Your task to perform on an android device: turn off location history Image 0: 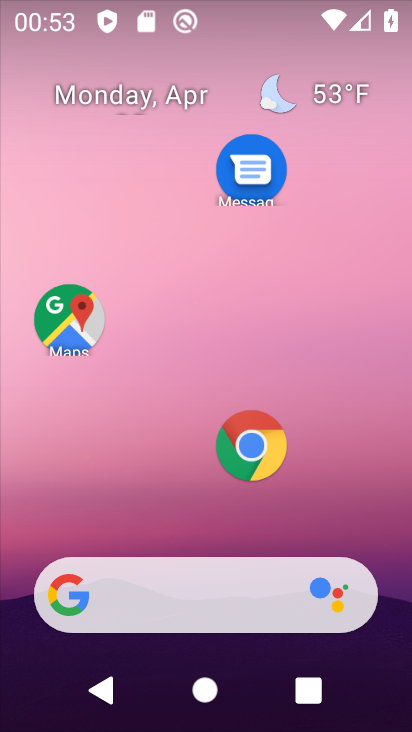
Step 0: drag from (157, 512) to (185, 61)
Your task to perform on an android device: turn off location history Image 1: 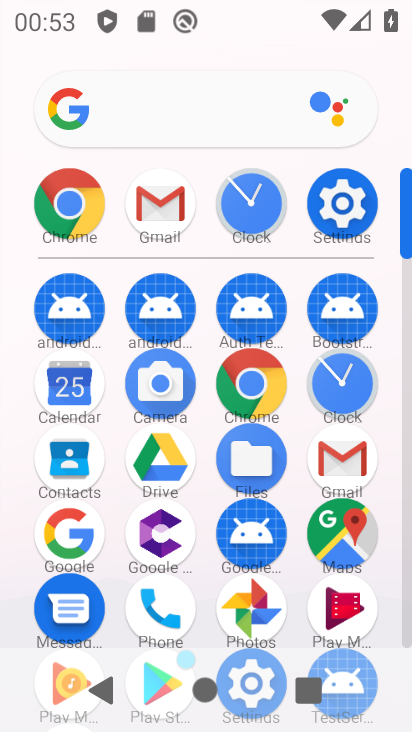
Step 1: drag from (198, 559) to (301, 106)
Your task to perform on an android device: turn off location history Image 2: 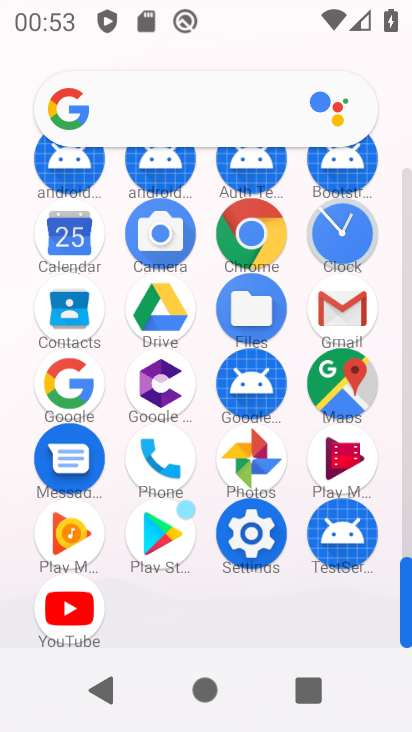
Step 2: click (258, 545)
Your task to perform on an android device: turn off location history Image 3: 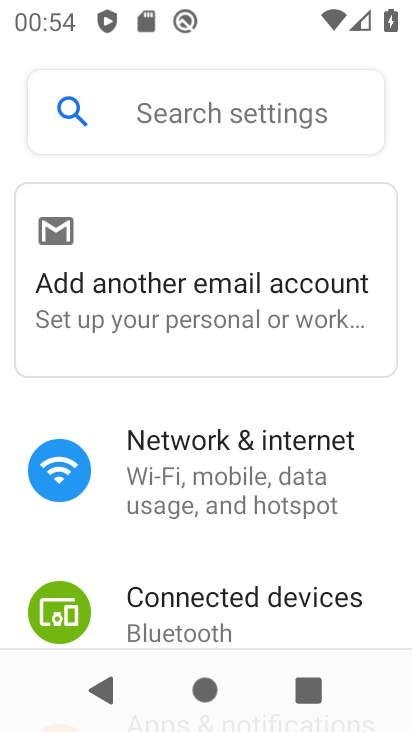
Step 3: drag from (196, 572) to (296, 37)
Your task to perform on an android device: turn off location history Image 4: 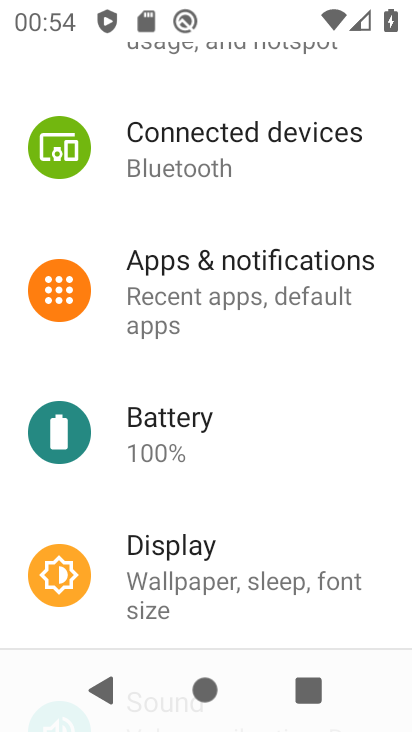
Step 4: drag from (213, 518) to (305, 36)
Your task to perform on an android device: turn off location history Image 5: 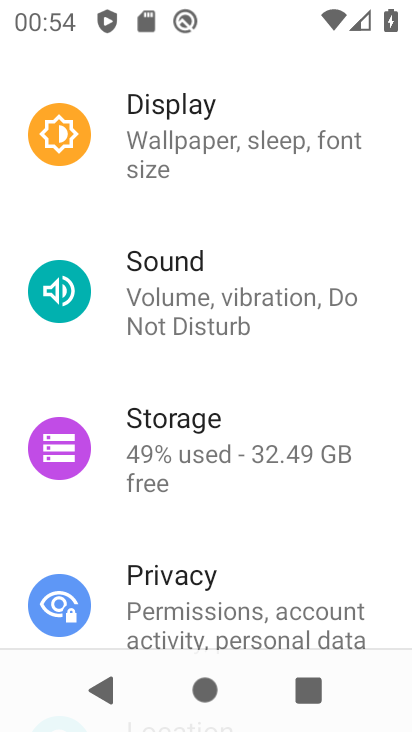
Step 5: drag from (222, 522) to (291, 104)
Your task to perform on an android device: turn off location history Image 6: 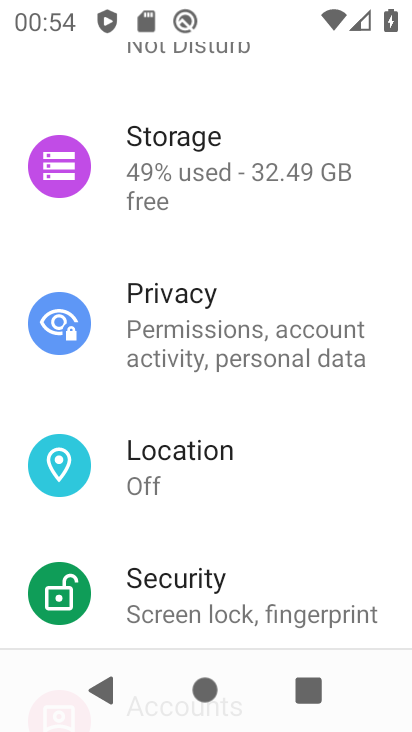
Step 6: click (190, 477)
Your task to perform on an android device: turn off location history Image 7: 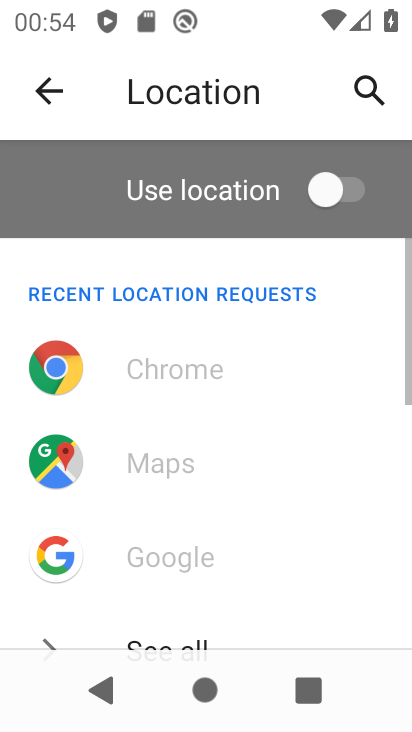
Step 7: drag from (169, 573) to (219, 234)
Your task to perform on an android device: turn off location history Image 8: 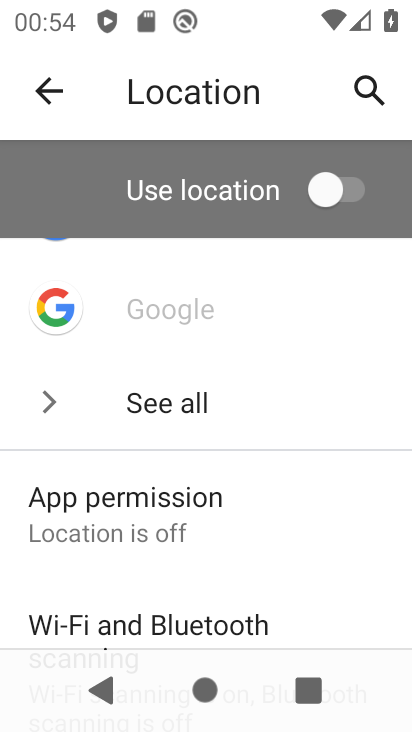
Step 8: drag from (168, 504) to (235, 189)
Your task to perform on an android device: turn off location history Image 9: 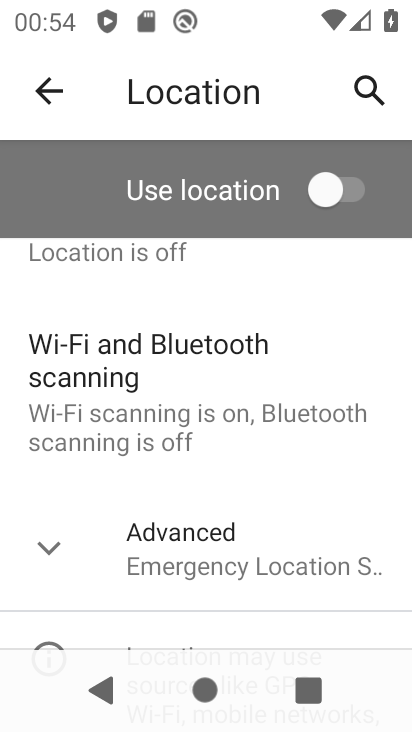
Step 9: click (221, 548)
Your task to perform on an android device: turn off location history Image 10: 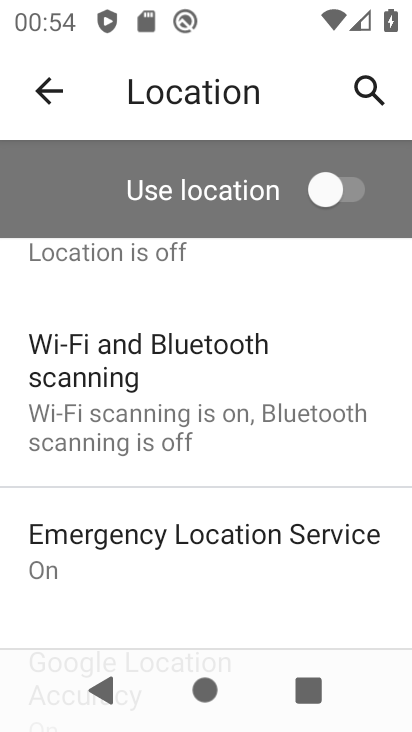
Step 10: drag from (176, 532) to (213, 316)
Your task to perform on an android device: turn off location history Image 11: 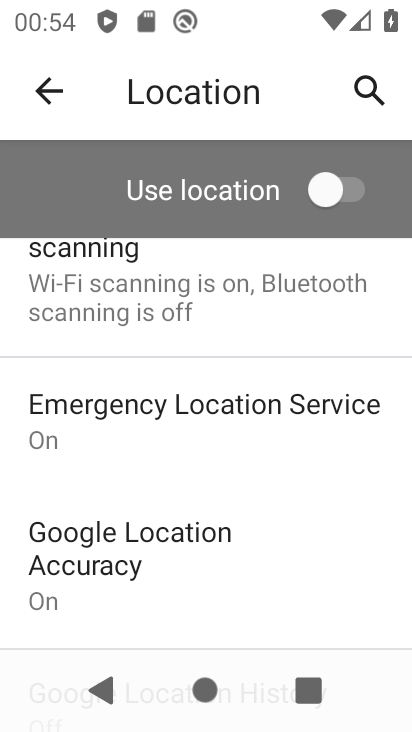
Step 11: drag from (188, 574) to (279, 256)
Your task to perform on an android device: turn off location history Image 12: 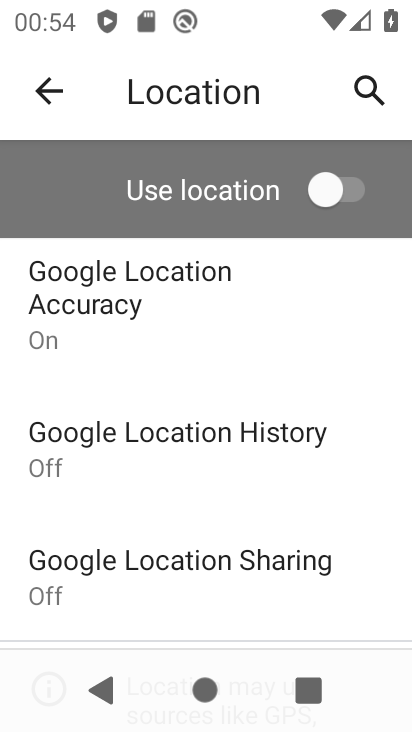
Step 12: click (145, 454)
Your task to perform on an android device: turn off location history Image 13: 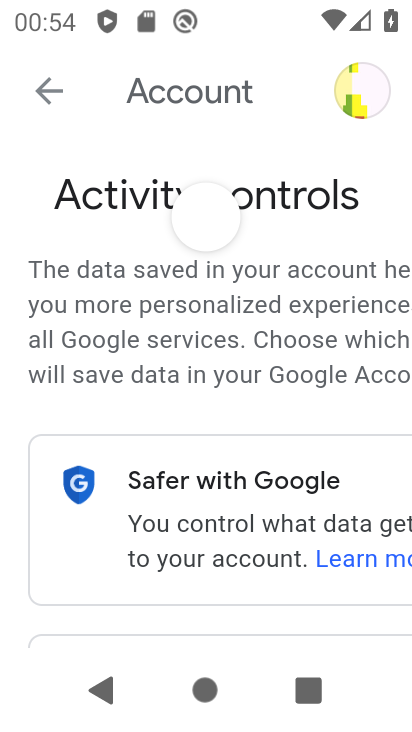
Step 13: drag from (198, 462) to (279, 128)
Your task to perform on an android device: turn off location history Image 14: 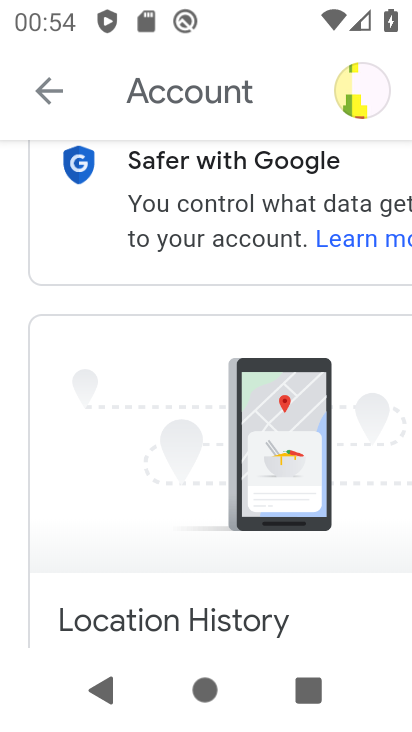
Step 14: drag from (251, 526) to (293, 113)
Your task to perform on an android device: turn off location history Image 15: 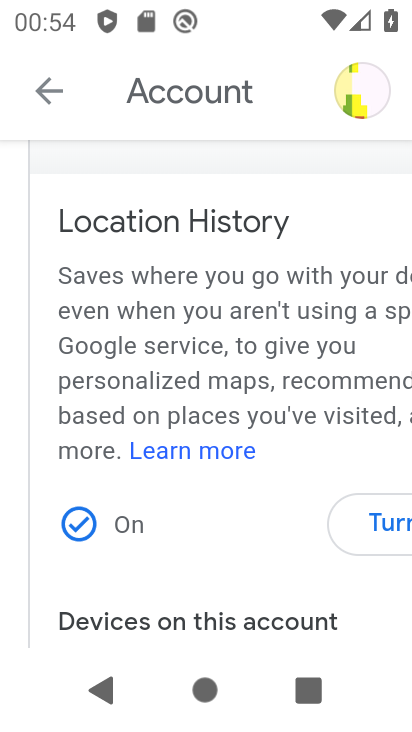
Step 15: click (366, 513)
Your task to perform on an android device: turn off location history Image 16: 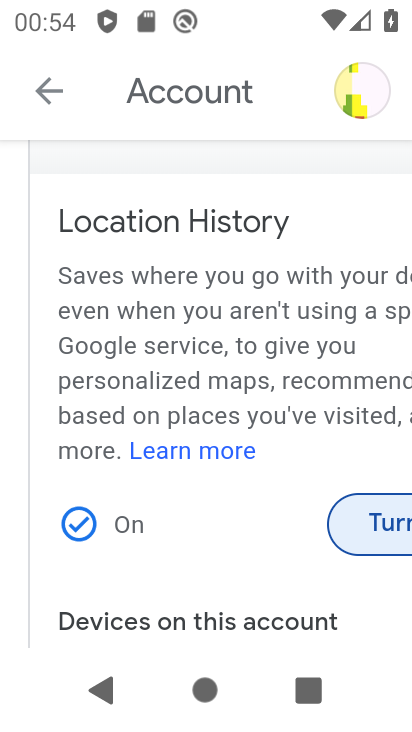
Step 16: click (366, 521)
Your task to perform on an android device: turn off location history Image 17: 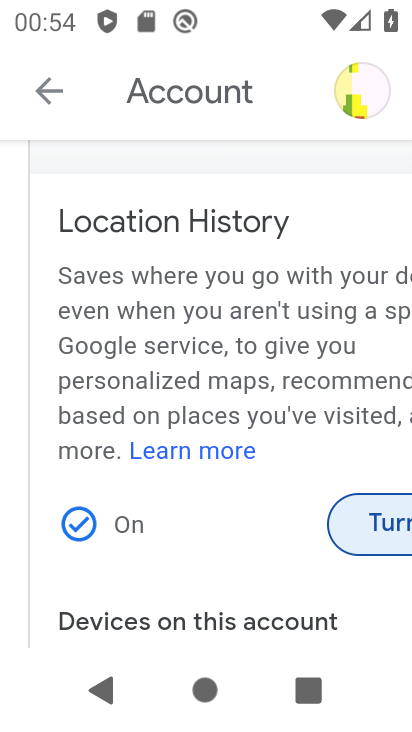
Step 17: click (367, 516)
Your task to perform on an android device: turn off location history Image 18: 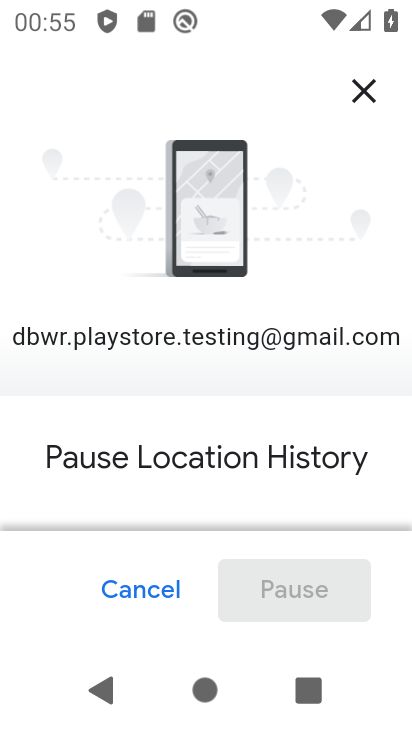
Step 18: drag from (187, 497) to (267, 16)
Your task to perform on an android device: turn off location history Image 19: 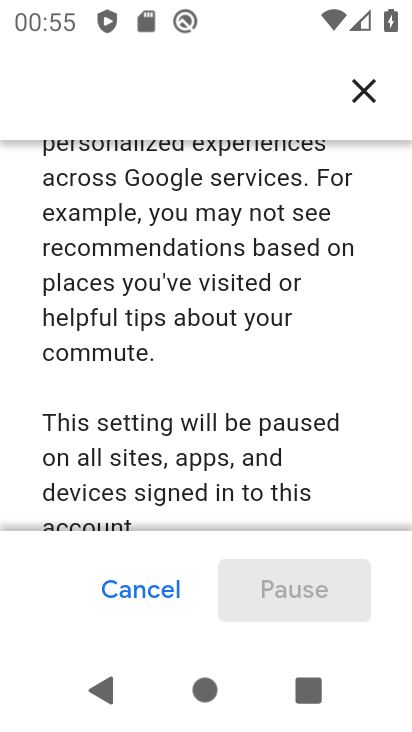
Step 19: drag from (199, 444) to (296, 13)
Your task to perform on an android device: turn off location history Image 20: 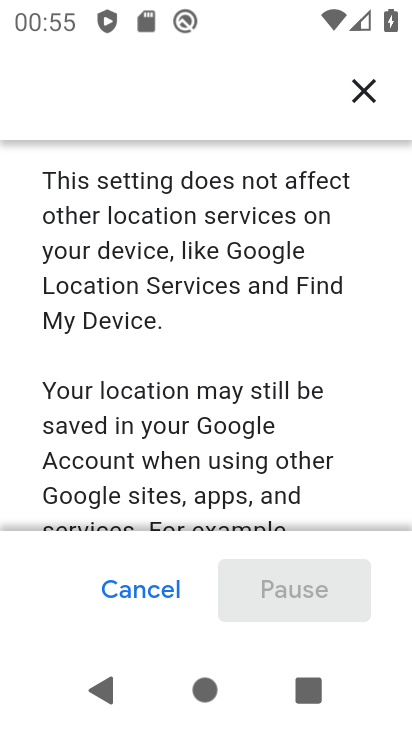
Step 20: drag from (205, 445) to (262, 89)
Your task to perform on an android device: turn off location history Image 21: 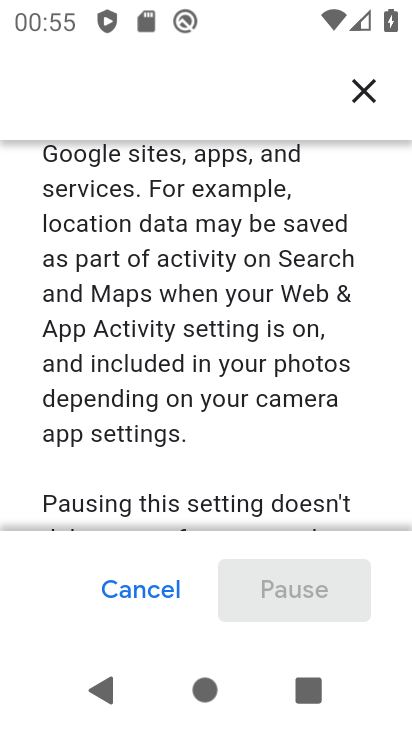
Step 21: drag from (202, 413) to (261, 72)
Your task to perform on an android device: turn off location history Image 22: 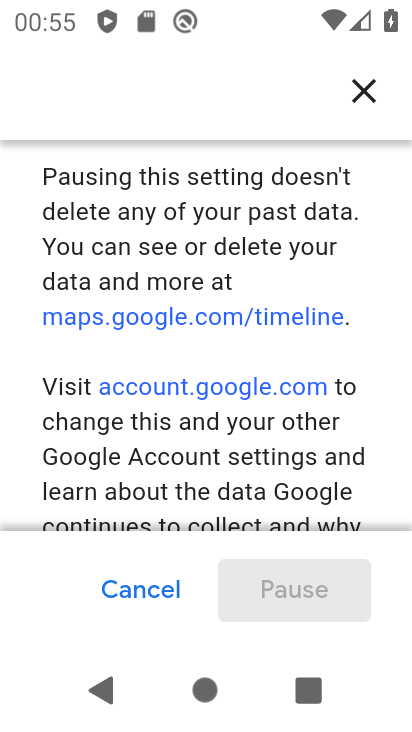
Step 22: drag from (148, 416) to (210, 69)
Your task to perform on an android device: turn off location history Image 23: 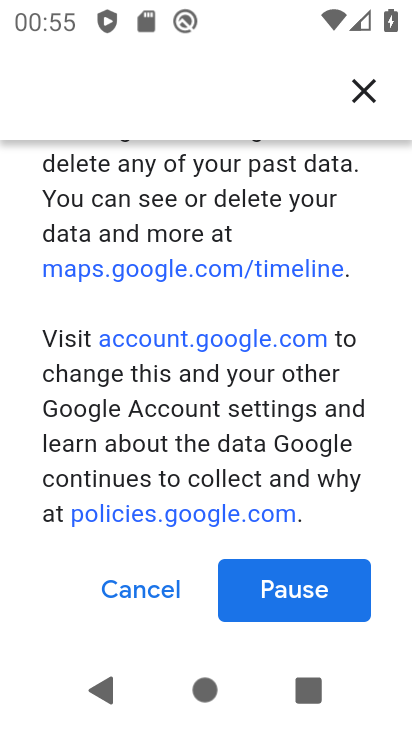
Step 23: click (274, 588)
Your task to perform on an android device: turn off location history Image 24: 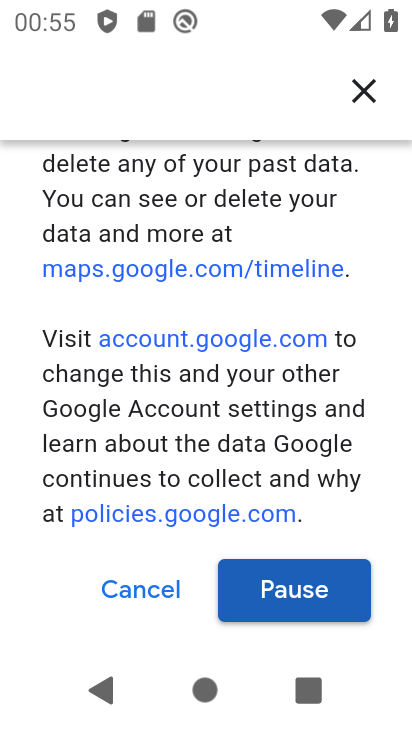
Step 24: click (273, 593)
Your task to perform on an android device: turn off location history Image 25: 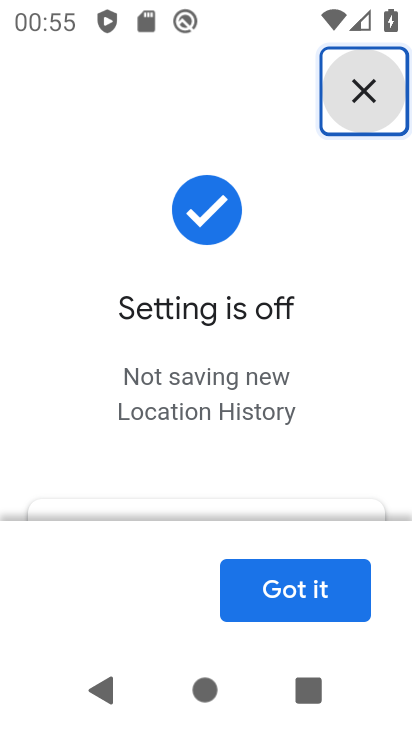
Step 25: click (279, 586)
Your task to perform on an android device: turn off location history Image 26: 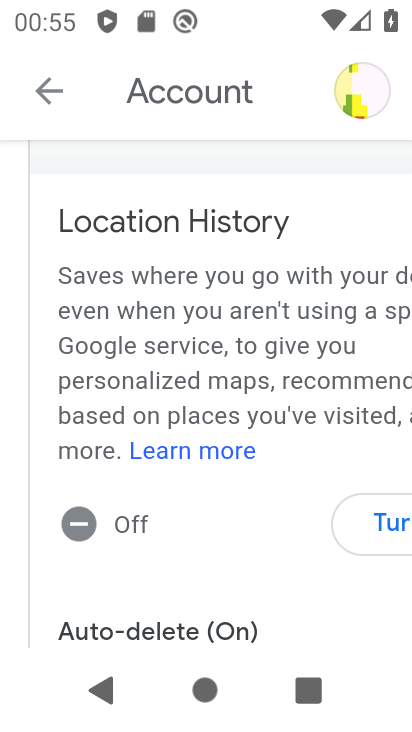
Step 26: task complete